Your task to perform on an android device: turn on data saver in the chrome app Image 0: 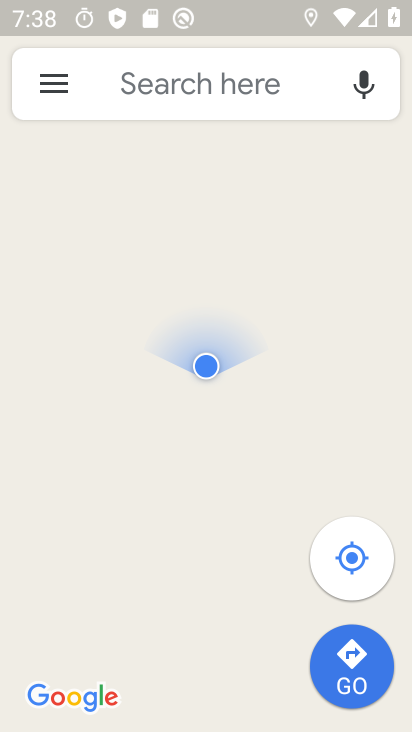
Step 0: press home button
Your task to perform on an android device: turn on data saver in the chrome app Image 1: 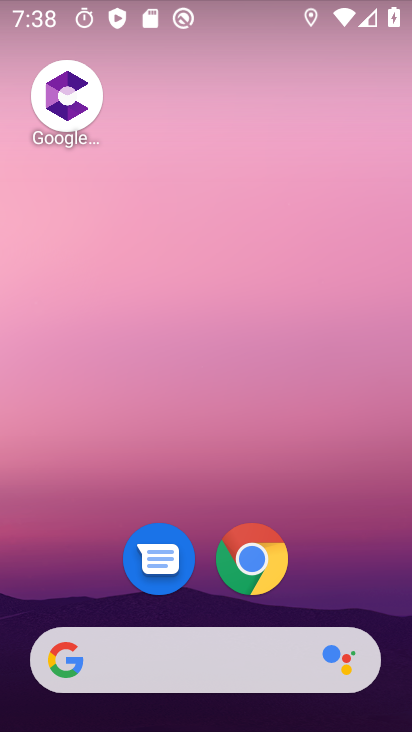
Step 1: click (250, 566)
Your task to perform on an android device: turn on data saver in the chrome app Image 2: 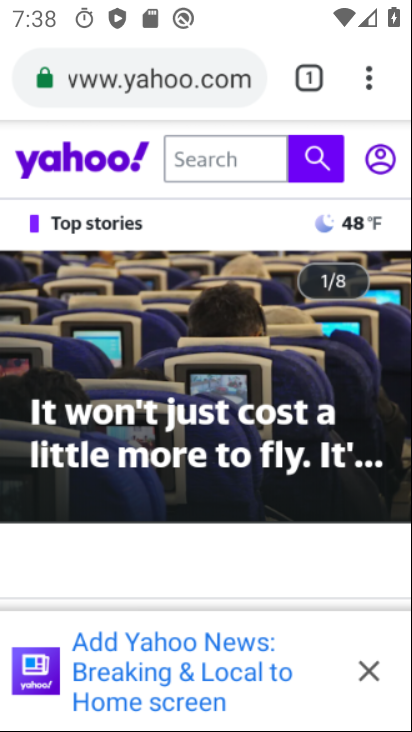
Step 2: drag from (372, 81) to (262, 366)
Your task to perform on an android device: turn on data saver in the chrome app Image 3: 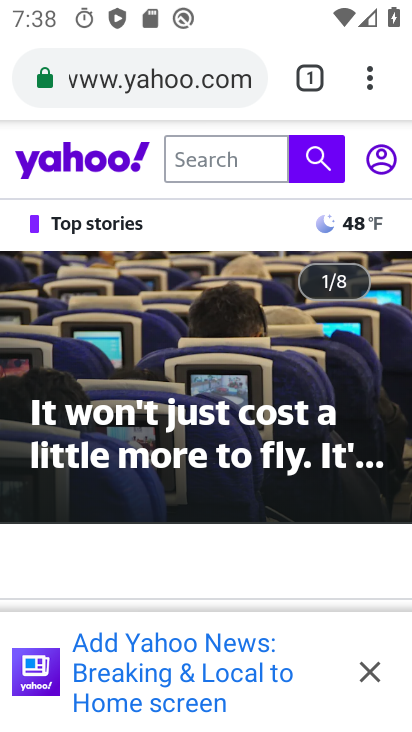
Step 3: click (369, 66)
Your task to perform on an android device: turn on data saver in the chrome app Image 4: 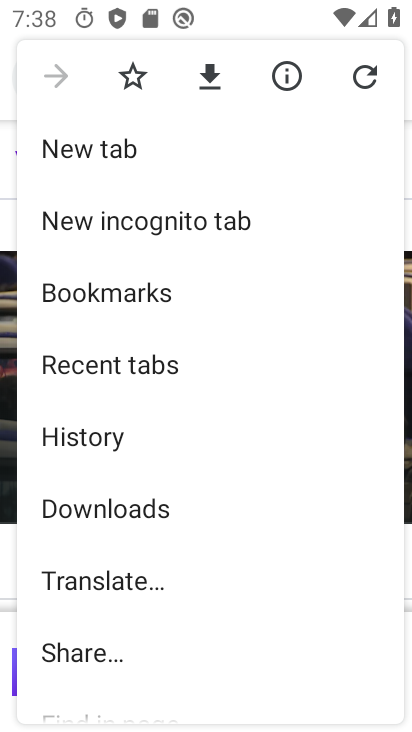
Step 4: drag from (221, 586) to (213, 214)
Your task to perform on an android device: turn on data saver in the chrome app Image 5: 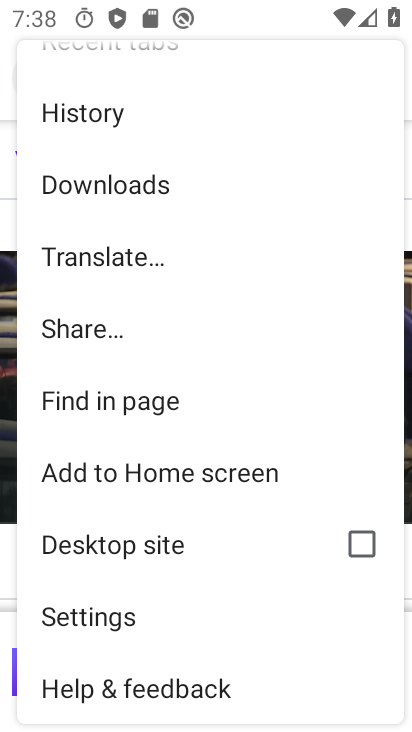
Step 5: click (119, 617)
Your task to perform on an android device: turn on data saver in the chrome app Image 6: 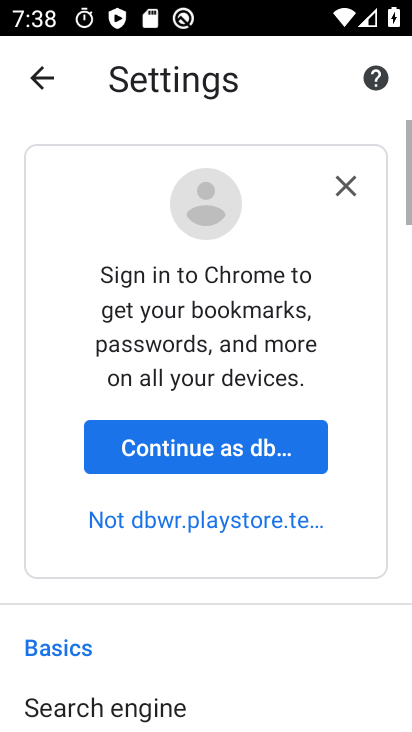
Step 6: drag from (209, 641) to (184, 188)
Your task to perform on an android device: turn on data saver in the chrome app Image 7: 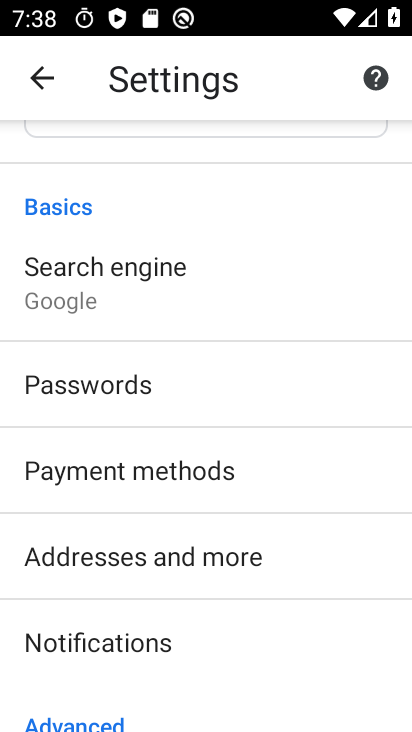
Step 7: drag from (197, 551) to (195, 211)
Your task to perform on an android device: turn on data saver in the chrome app Image 8: 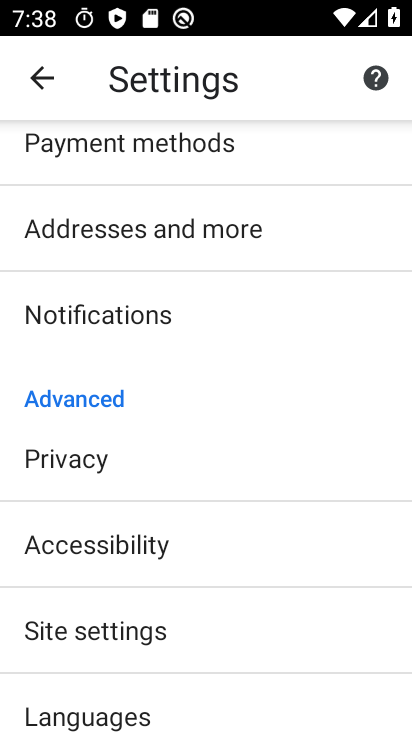
Step 8: drag from (198, 520) to (181, 210)
Your task to perform on an android device: turn on data saver in the chrome app Image 9: 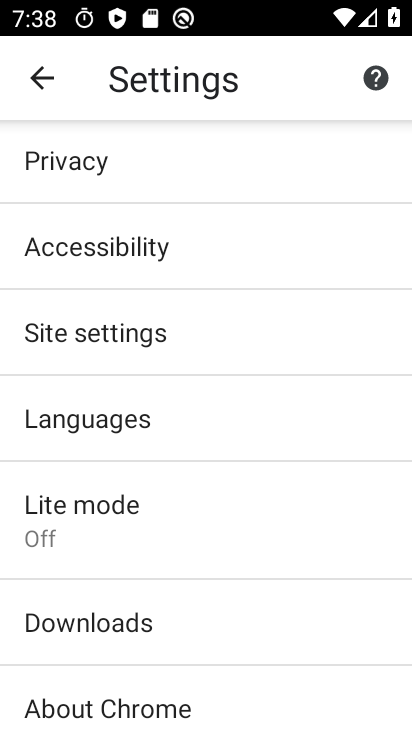
Step 9: click (102, 508)
Your task to perform on an android device: turn on data saver in the chrome app Image 10: 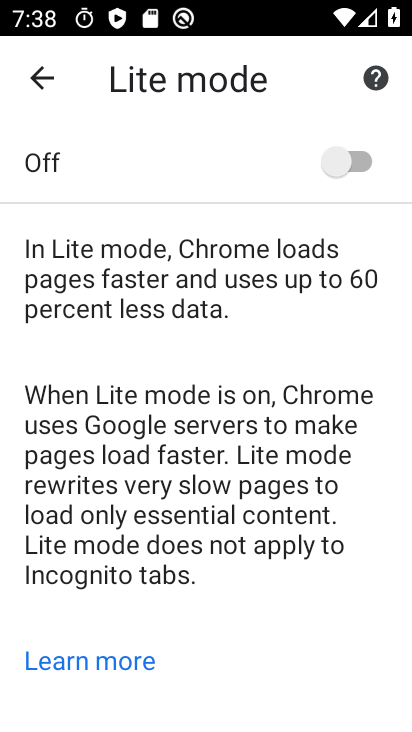
Step 10: click (331, 166)
Your task to perform on an android device: turn on data saver in the chrome app Image 11: 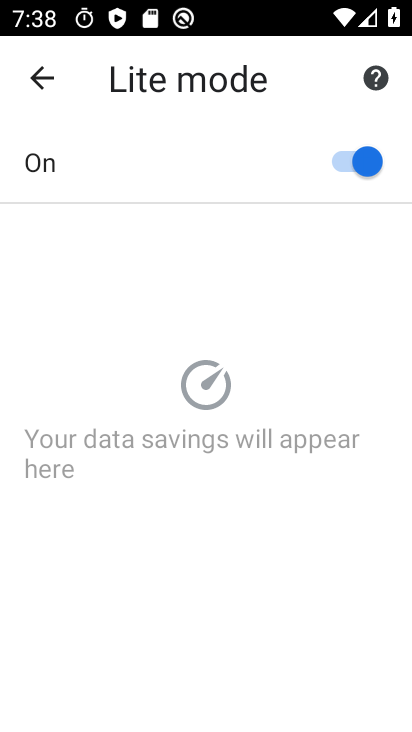
Step 11: task complete